Your task to perform on an android device: Show me recent news Image 0: 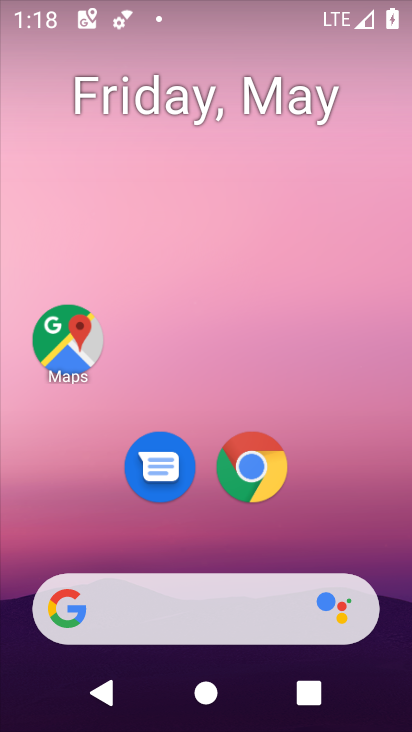
Step 0: drag from (347, 285) to (356, 38)
Your task to perform on an android device: Show me recent news Image 1: 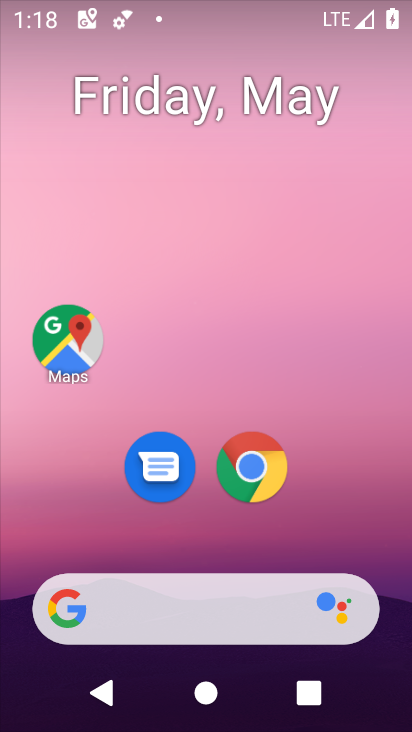
Step 1: drag from (353, 517) to (407, 0)
Your task to perform on an android device: Show me recent news Image 2: 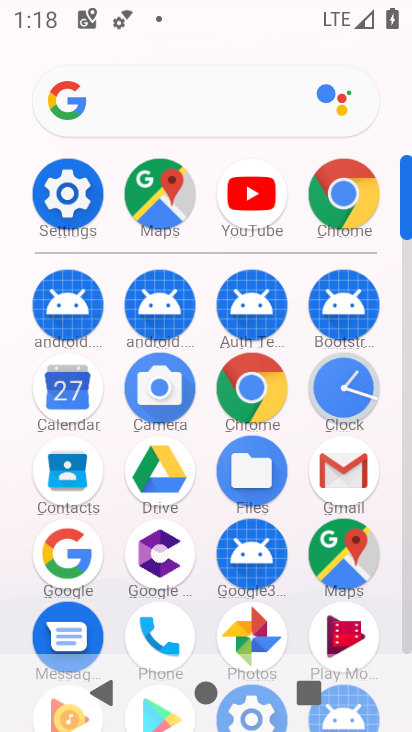
Step 2: click (346, 188)
Your task to perform on an android device: Show me recent news Image 3: 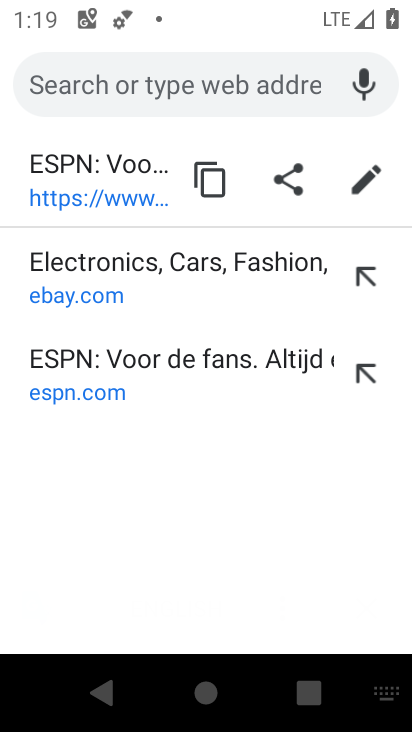
Step 3: task complete